Your task to perform on an android device: turn off picture-in-picture Image 0: 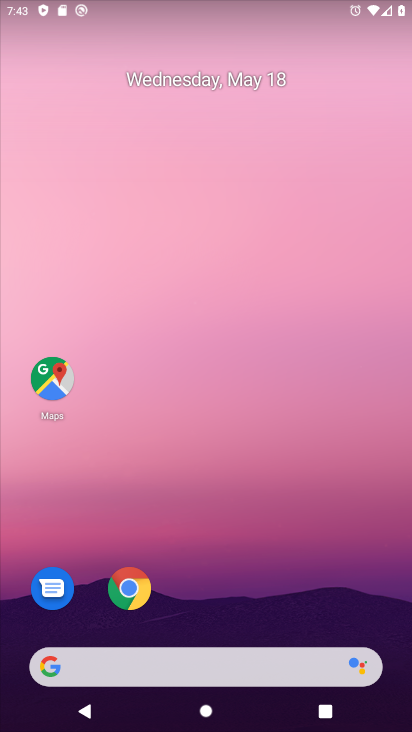
Step 0: click (141, 591)
Your task to perform on an android device: turn off picture-in-picture Image 1: 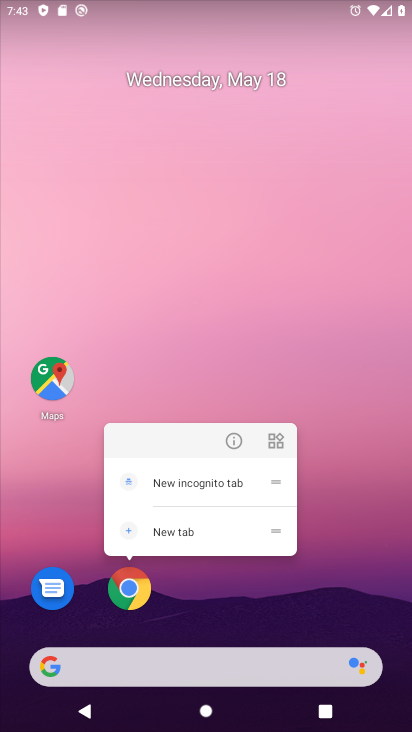
Step 1: click (233, 443)
Your task to perform on an android device: turn off picture-in-picture Image 2: 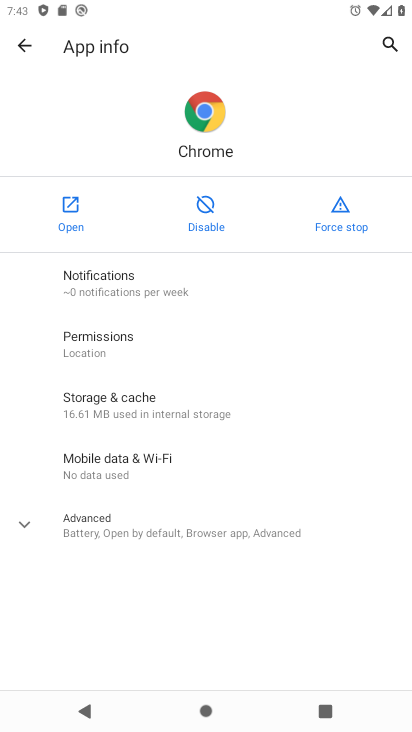
Step 2: click (63, 524)
Your task to perform on an android device: turn off picture-in-picture Image 3: 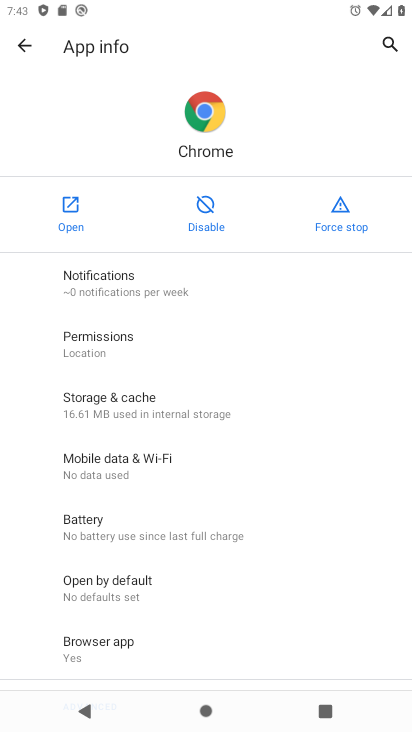
Step 3: drag from (147, 598) to (170, 471)
Your task to perform on an android device: turn off picture-in-picture Image 4: 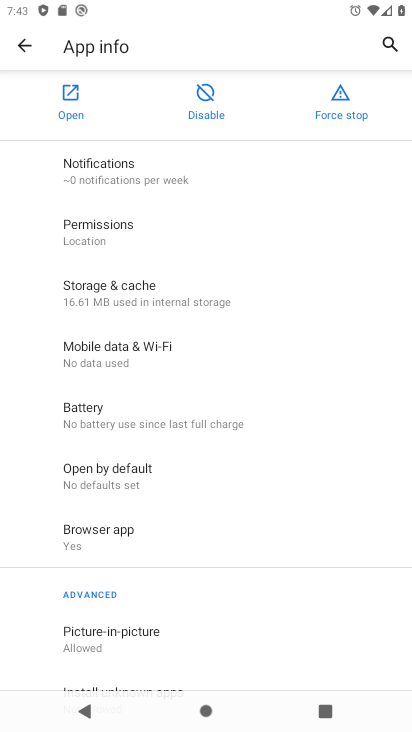
Step 4: click (139, 642)
Your task to perform on an android device: turn off picture-in-picture Image 5: 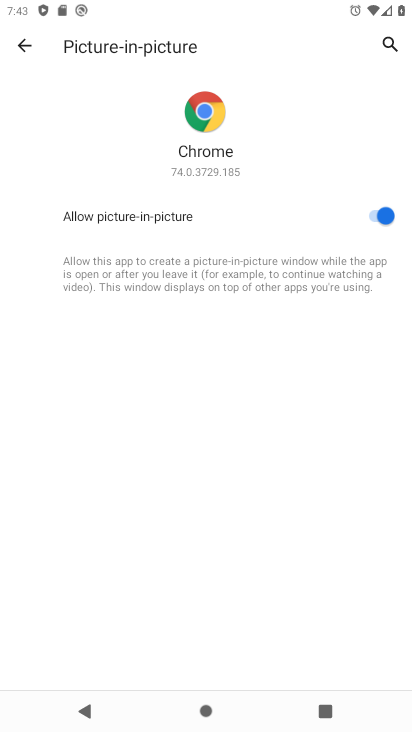
Step 5: click (350, 216)
Your task to perform on an android device: turn off picture-in-picture Image 6: 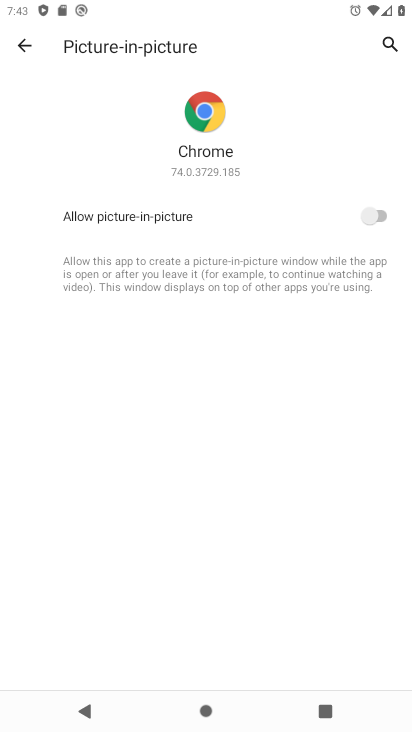
Step 6: task complete